Your task to perform on an android device: Go to Wikipedia Image 0: 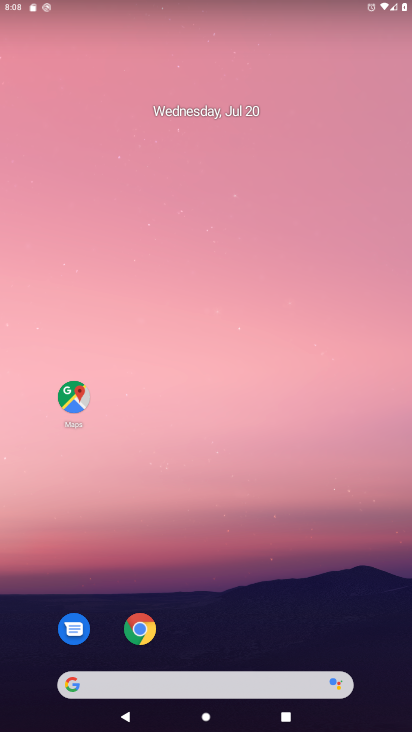
Step 0: click (147, 628)
Your task to perform on an android device: Go to Wikipedia Image 1: 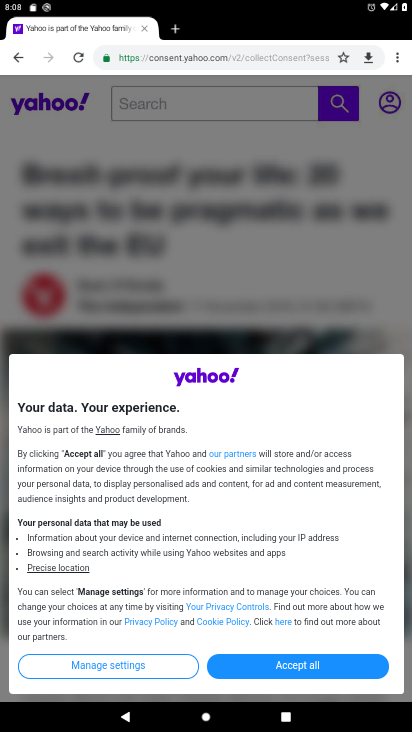
Step 1: click (244, 305)
Your task to perform on an android device: Go to Wikipedia Image 2: 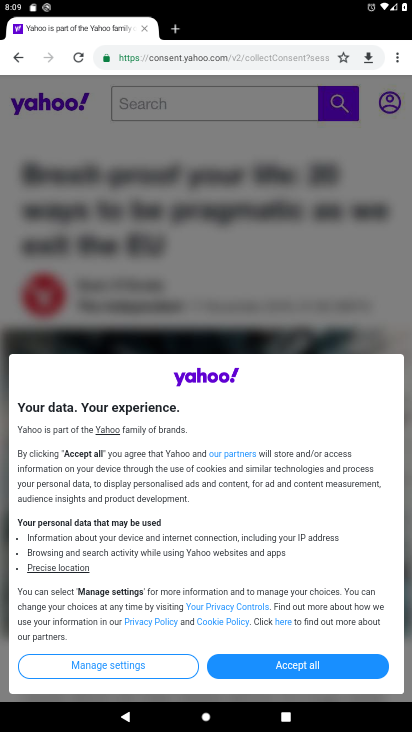
Step 2: click (174, 33)
Your task to perform on an android device: Go to Wikipedia Image 3: 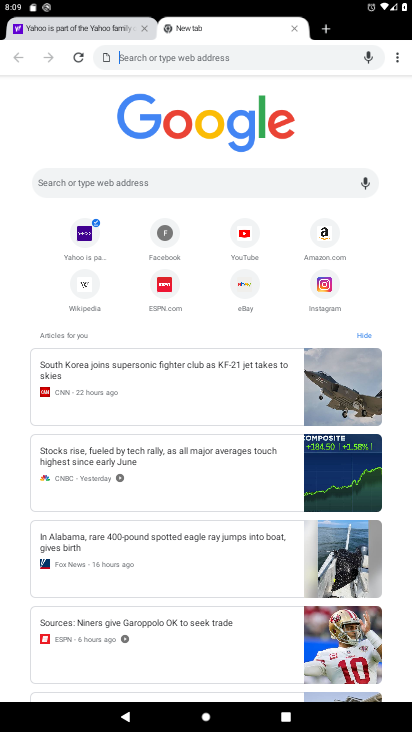
Step 3: click (81, 282)
Your task to perform on an android device: Go to Wikipedia Image 4: 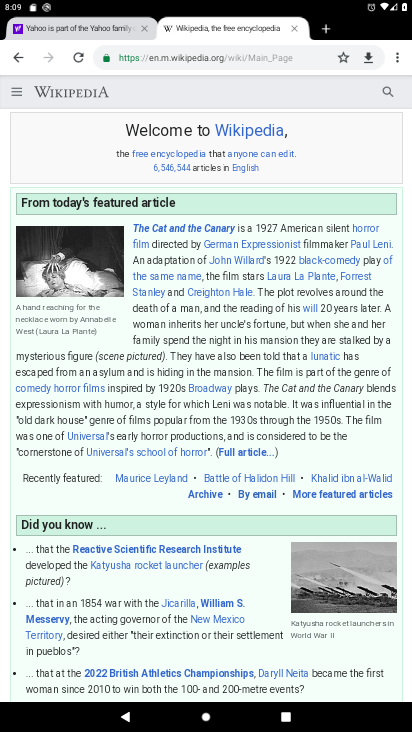
Step 4: task complete